Your task to perform on an android device: Do I have any events this weekend? Image 0: 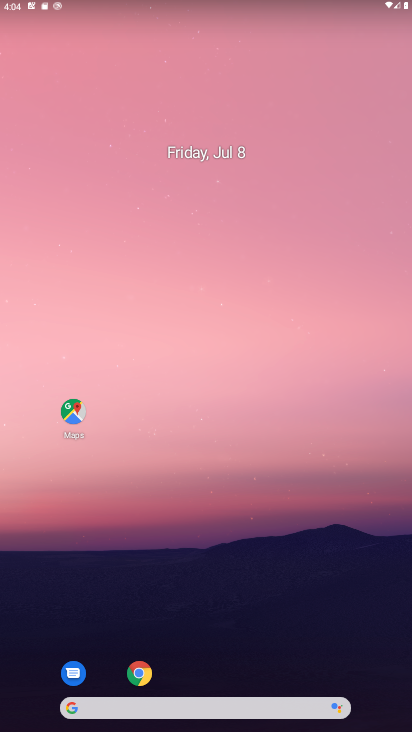
Step 0: drag from (296, 675) to (273, 0)
Your task to perform on an android device: Do I have any events this weekend? Image 1: 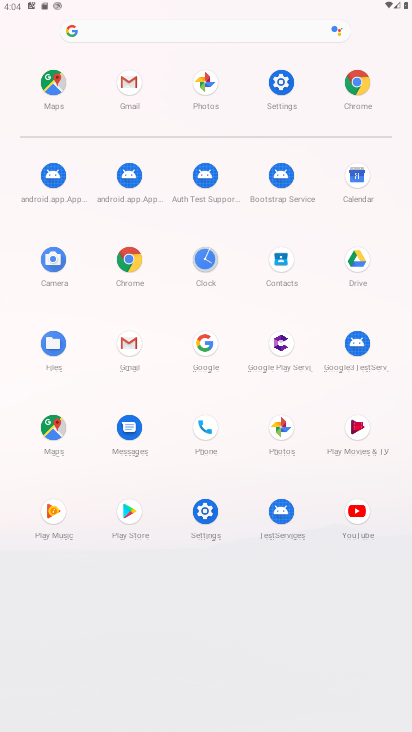
Step 1: click (356, 183)
Your task to perform on an android device: Do I have any events this weekend? Image 2: 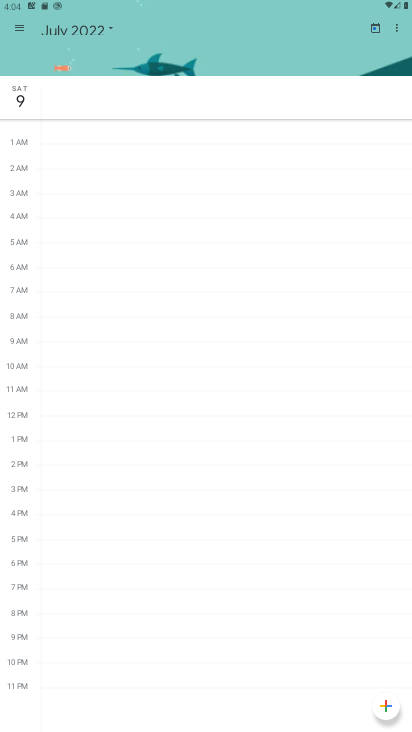
Step 2: click (14, 26)
Your task to perform on an android device: Do I have any events this weekend? Image 3: 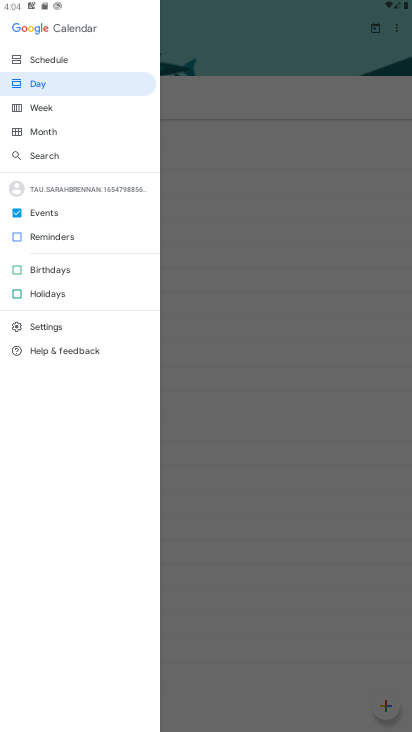
Step 3: click (36, 111)
Your task to perform on an android device: Do I have any events this weekend? Image 4: 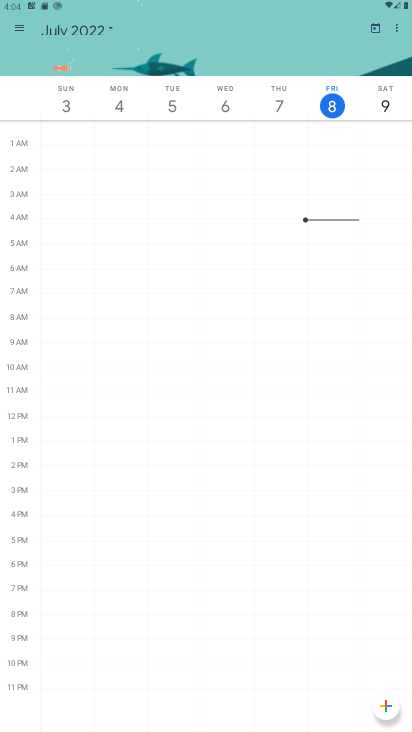
Step 4: task complete